Your task to perform on an android device: Open Google Chrome and open the bookmarks view Image 0: 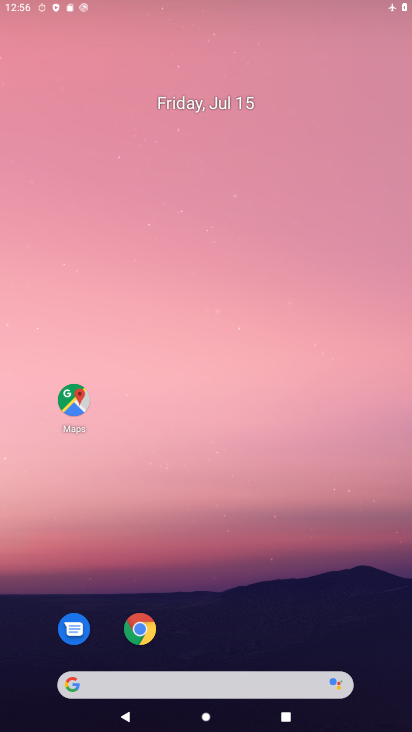
Step 0: drag from (250, 606) to (282, 34)
Your task to perform on an android device: Open Google Chrome and open the bookmarks view Image 1: 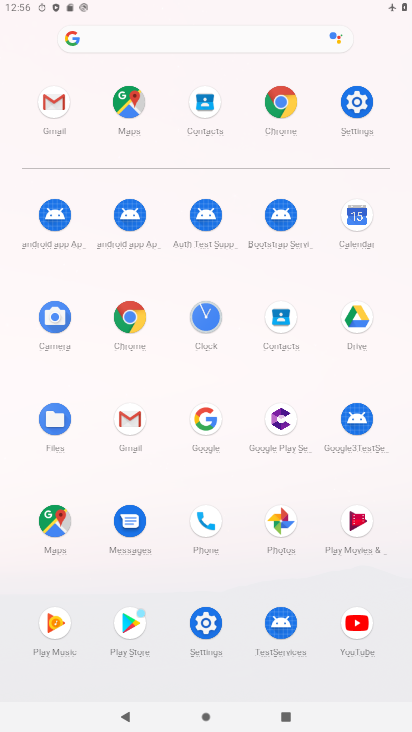
Step 1: click (129, 338)
Your task to perform on an android device: Open Google Chrome and open the bookmarks view Image 2: 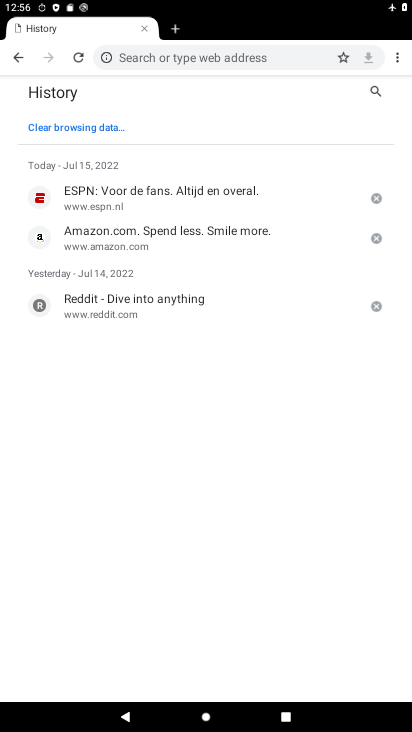
Step 2: click (396, 54)
Your task to perform on an android device: Open Google Chrome and open the bookmarks view Image 3: 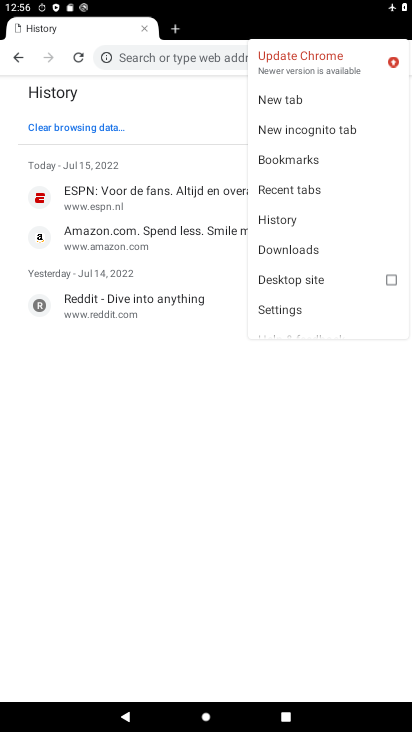
Step 3: click (310, 163)
Your task to perform on an android device: Open Google Chrome and open the bookmarks view Image 4: 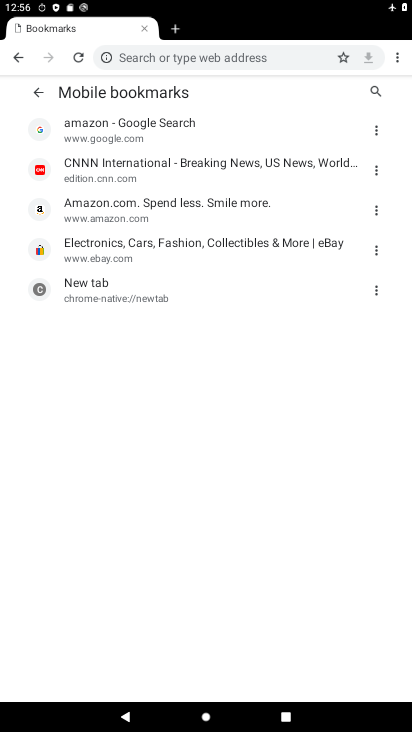
Step 4: task complete